Your task to perform on an android device: Go to Google maps Image 0: 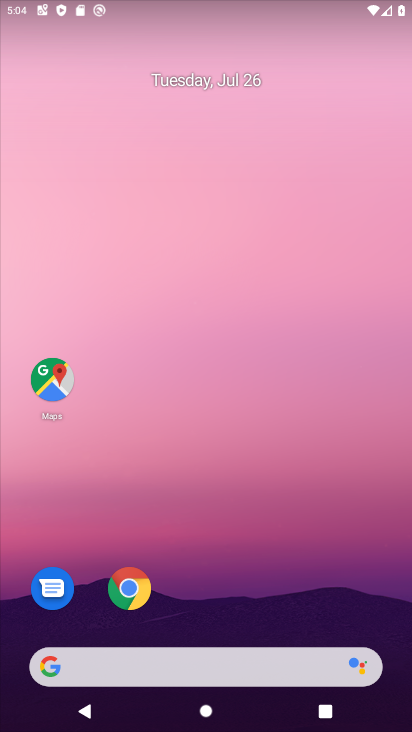
Step 0: drag from (210, 653) to (411, 93)
Your task to perform on an android device: Go to Google maps Image 1: 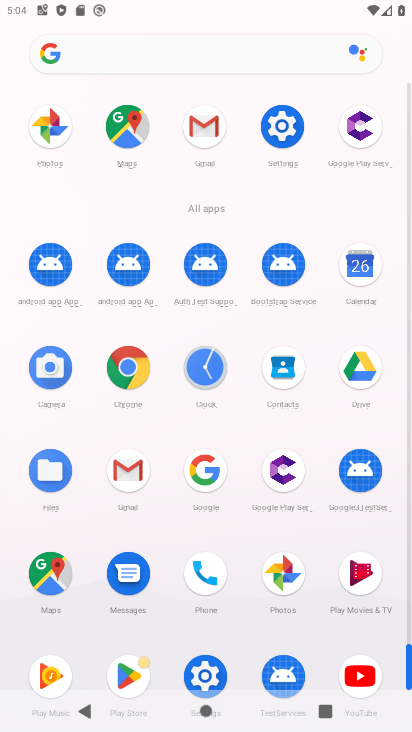
Step 1: click (62, 579)
Your task to perform on an android device: Go to Google maps Image 2: 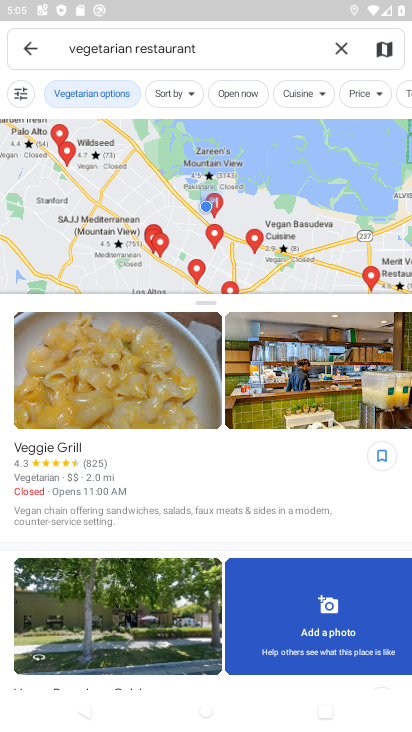
Step 2: click (29, 46)
Your task to perform on an android device: Go to Google maps Image 3: 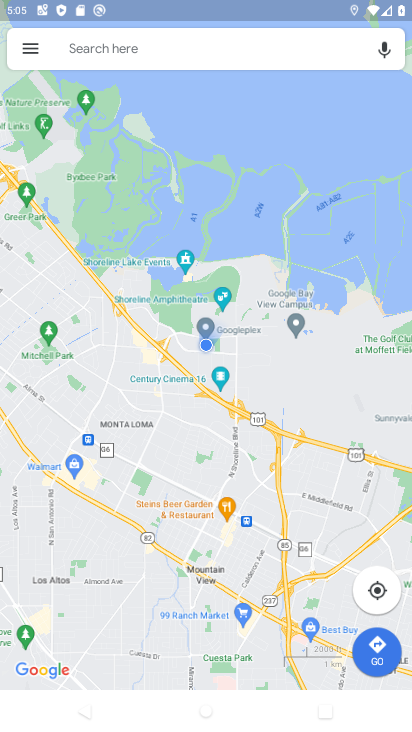
Step 3: task complete